Your task to perform on an android device: Open eBay Image 0: 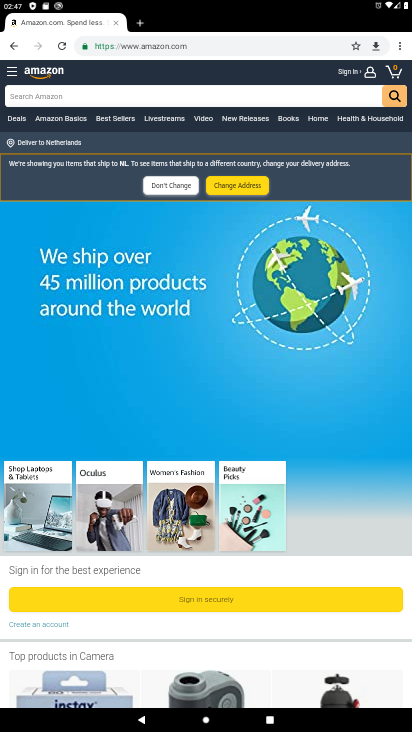
Step 0: press home button
Your task to perform on an android device: Open eBay Image 1: 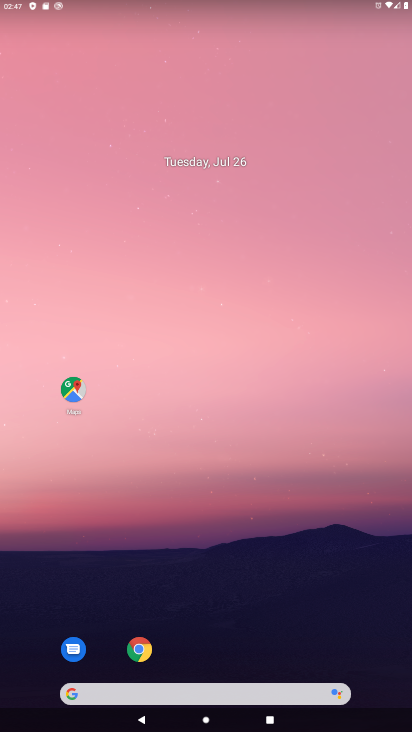
Step 1: click (139, 652)
Your task to perform on an android device: Open eBay Image 2: 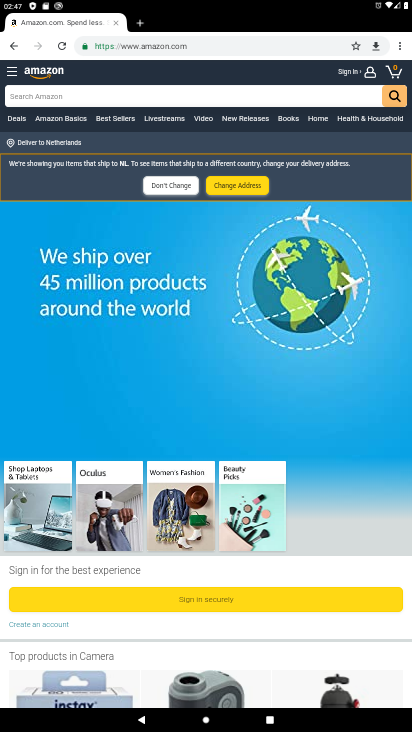
Step 2: click (252, 51)
Your task to perform on an android device: Open eBay Image 3: 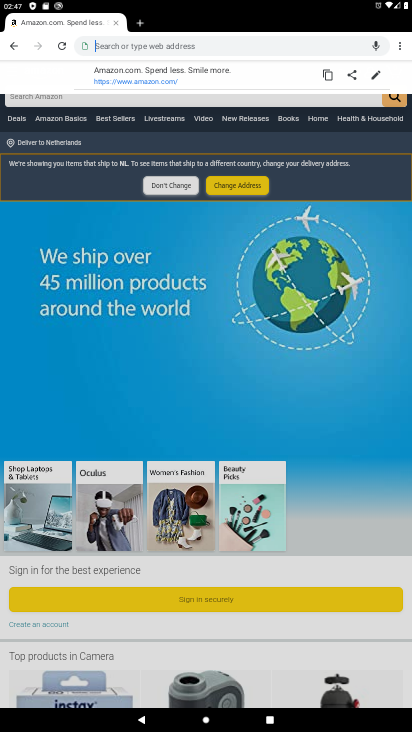
Step 3: click (252, 51)
Your task to perform on an android device: Open eBay Image 4: 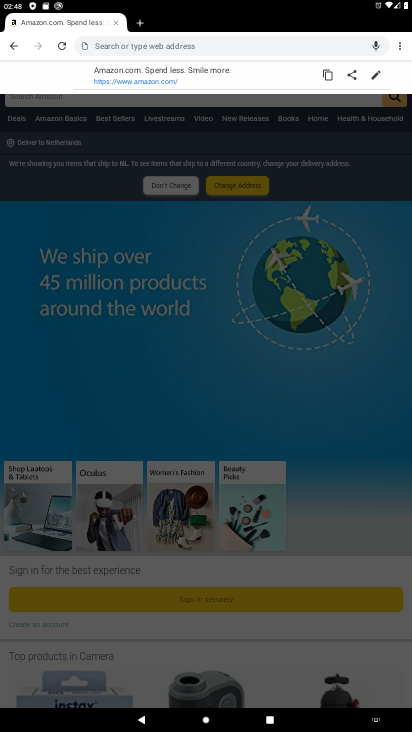
Step 4: type "eBay"
Your task to perform on an android device: Open eBay Image 5: 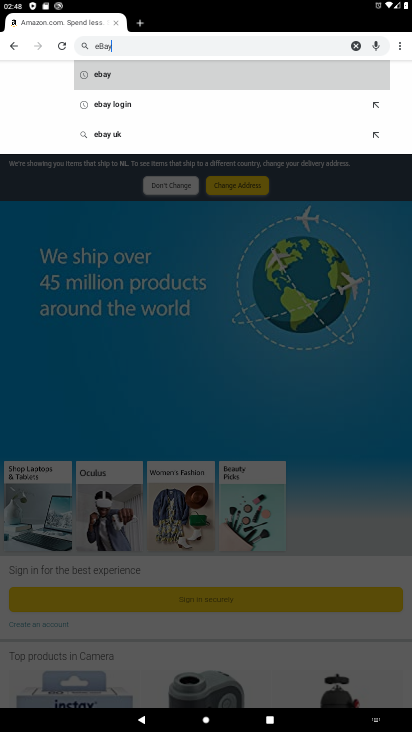
Step 5: click (103, 76)
Your task to perform on an android device: Open eBay Image 6: 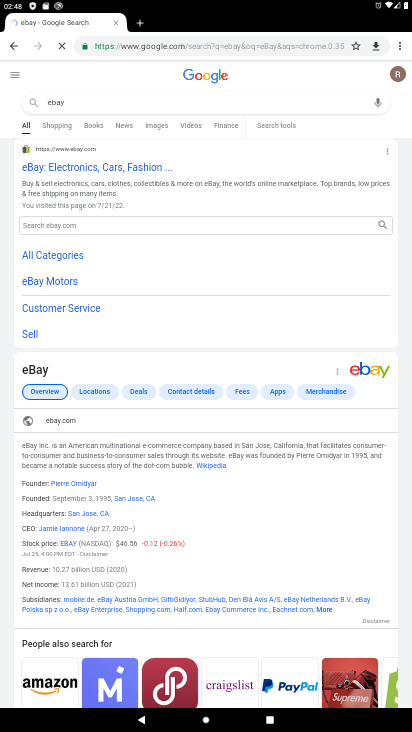
Step 6: click (97, 164)
Your task to perform on an android device: Open eBay Image 7: 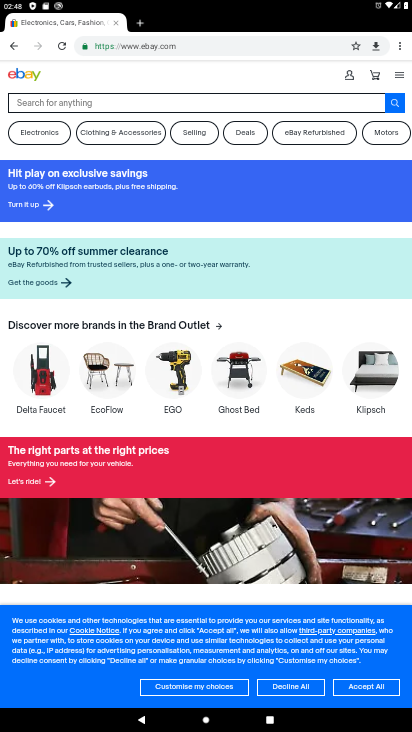
Step 7: task complete